Your task to perform on an android device: See recent photos Image 0: 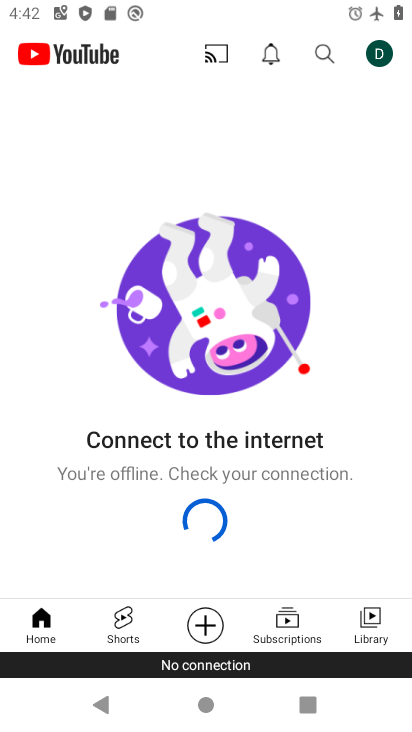
Step 0: press home button
Your task to perform on an android device: See recent photos Image 1: 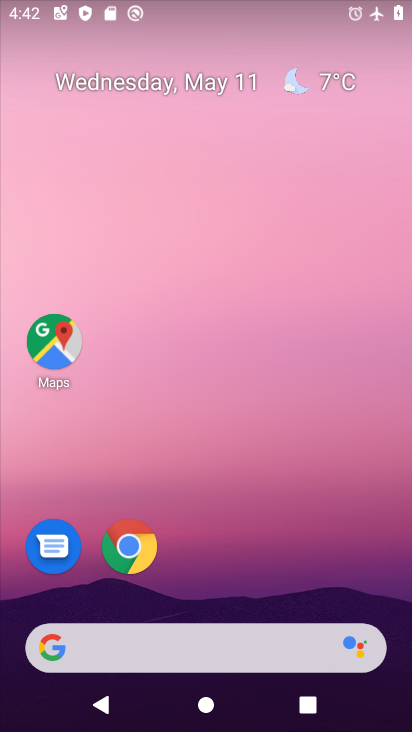
Step 1: drag from (306, 653) to (407, 407)
Your task to perform on an android device: See recent photos Image 2: 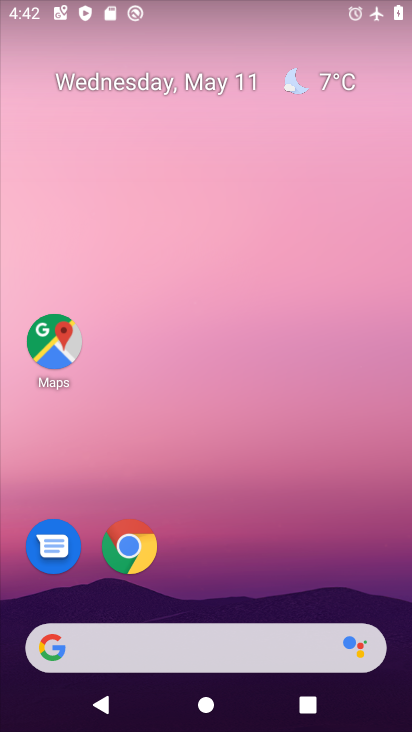
Step 2: drag from (244, 649) to (225, 7)
Your task to perform on an android device: See recent photos Image 3: 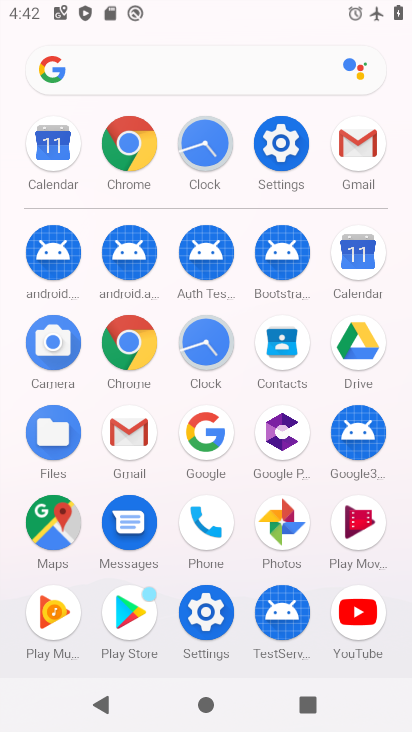
Step 3: click (281, 531)
Your task to perform on an android device: See recent photos Image 4: 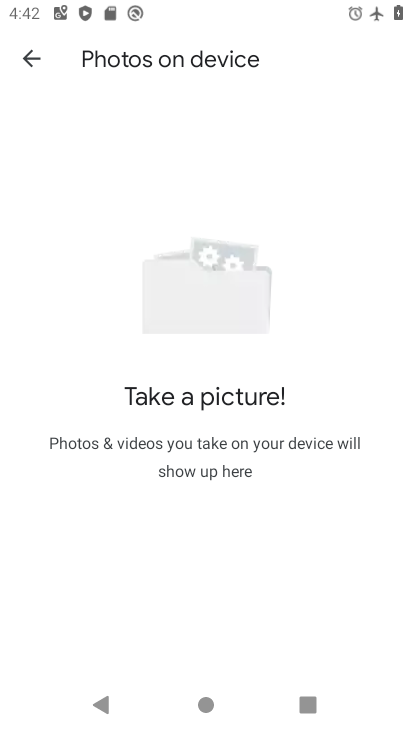
Step 4: task complete